Your task to perform on an android device: turn on improve location accuracy Image 0: 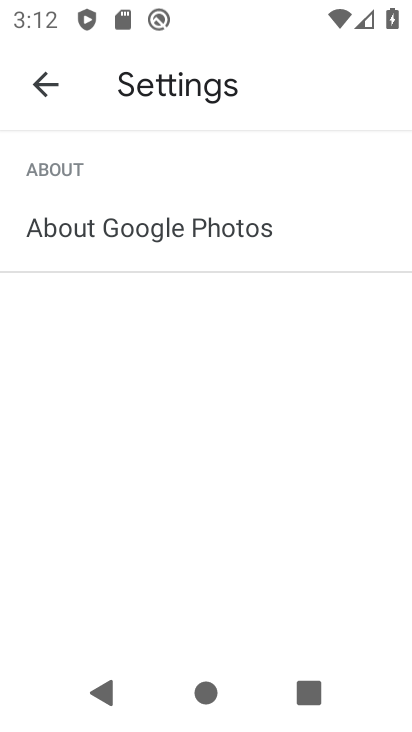
Step 0: press home button
Your task to perform on an android device: turn on improve location accuracy Image 1: 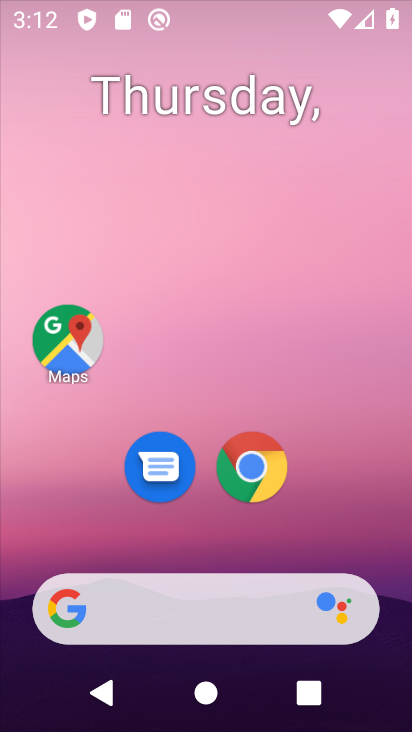
Step 1: drag from (203, 637) to (210, 107)
Your task to perform on an android device: turn on improve location accuracy Image 2: 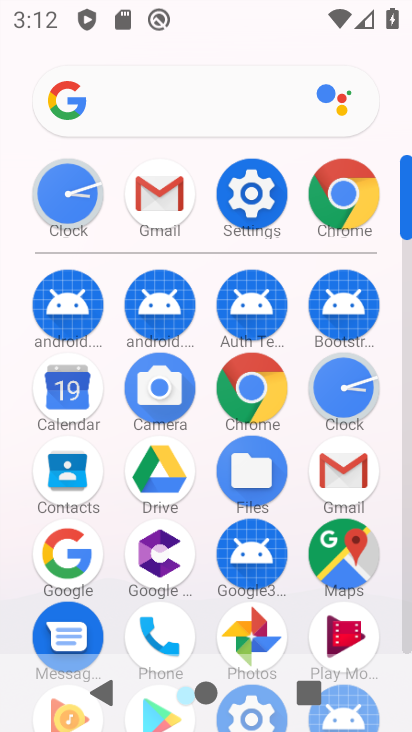
Step 2: click (246, 190)
Your task to perform on an android device: turn on improve location accuracy Image 3: 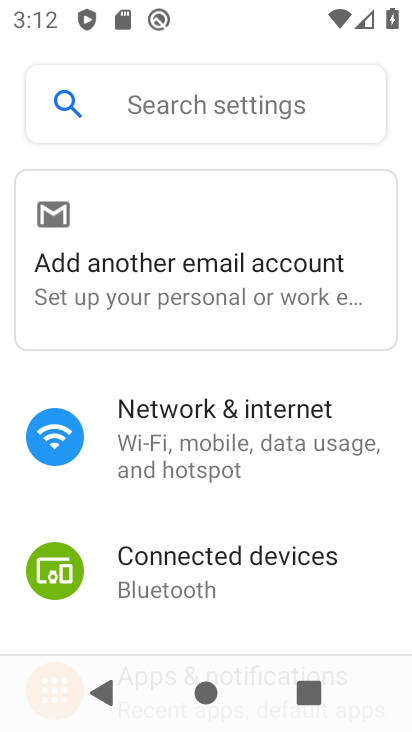
Step 3: drag from (202, 516) to (220, 75)
Your task to perform on an android device: turn on improve location accuracy Image 4: 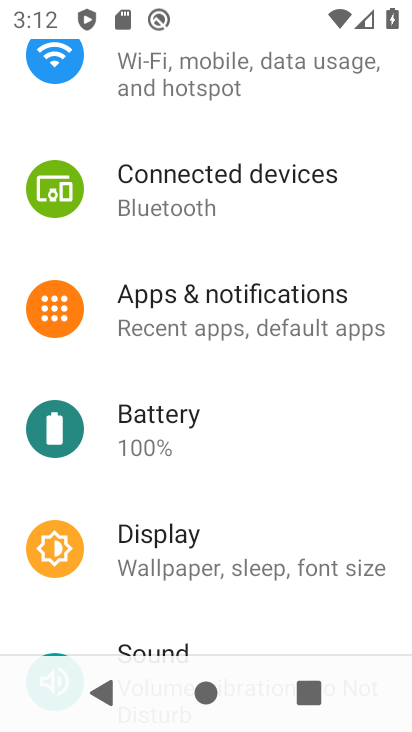
Step 4: drag from (177, 545) to (211, 95)
Your task to perform on an android device: turn on improve location accuracy Image 5: 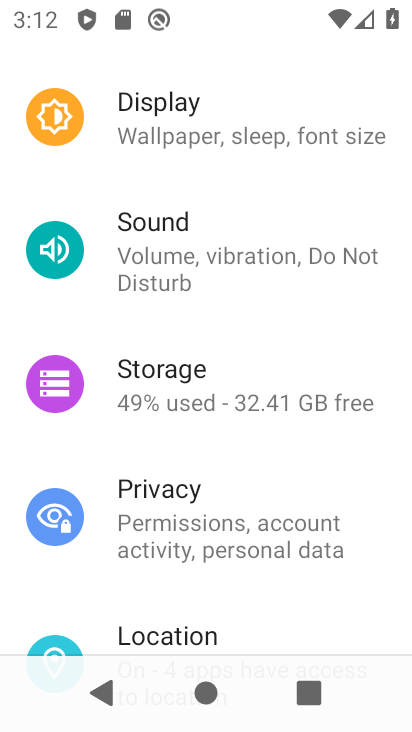
Step 5: click (186, 635)
Your task to perform on an android device: turn on improve location accuracy Image 6: 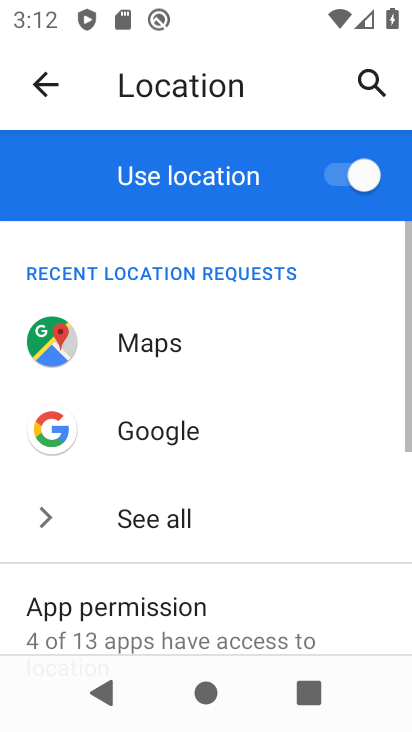
Step 6: drag from (212, 573) to (289, 140)
Your task to perform on an android device: turn on improve location accuracy Image 7: 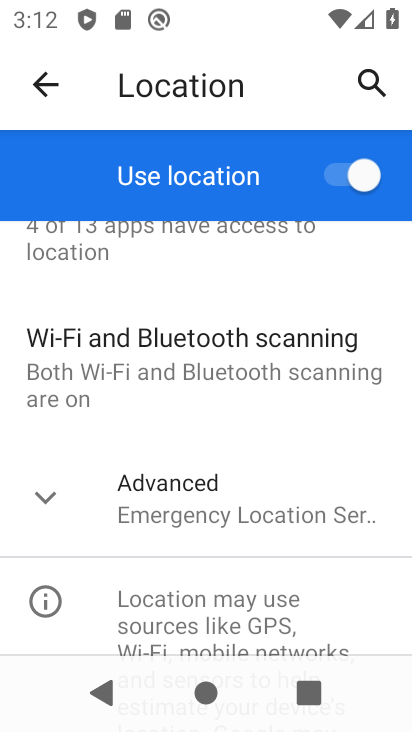
Step 7: click (220, 512)
Your task to perform on an android device: turn on improve location accuracy Image 8: 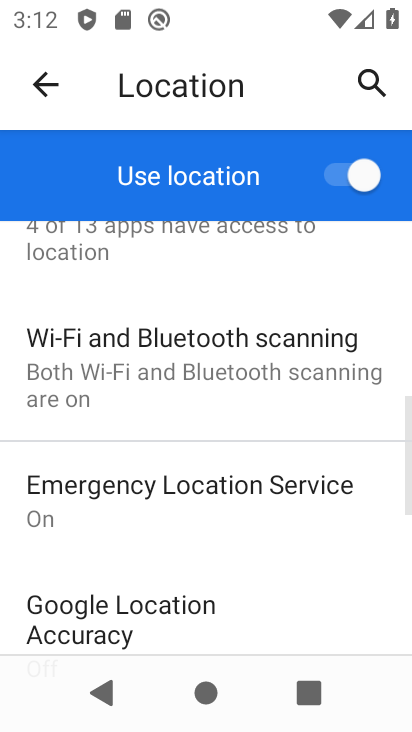
Step 8: click (223, 615)
Your task to perform on an android device: turn on improve location accuracy Image 9: 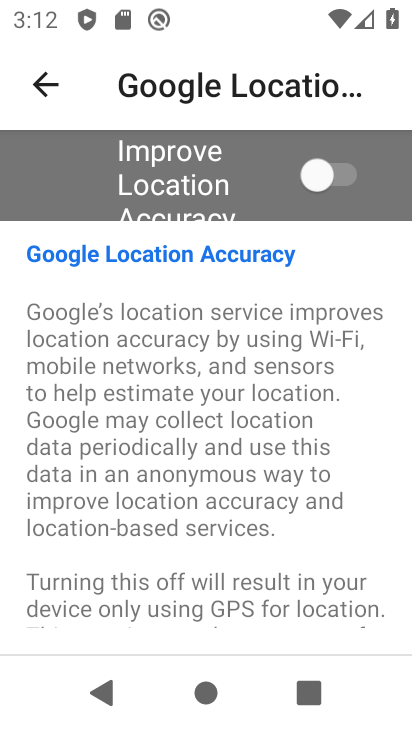
Step 9: click (314, 170)
Your task to perform on an android device: turn on improve location accuracy Image 10: 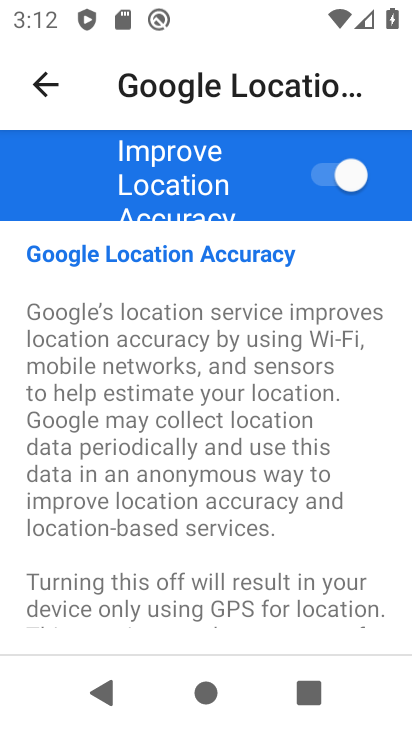
Step 10: task complete